Your task to perform on an android device: Go to Google maps Image 0: 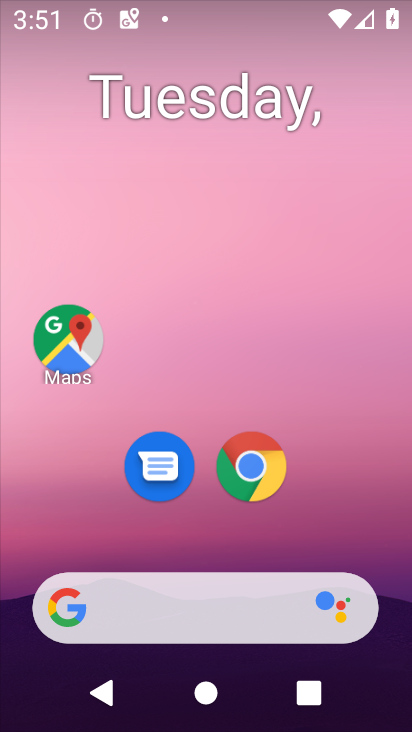
Step 0: drag from (342, 491) to (335, 111)
Your task to perform on an android device: Go to Google maps Image 1: 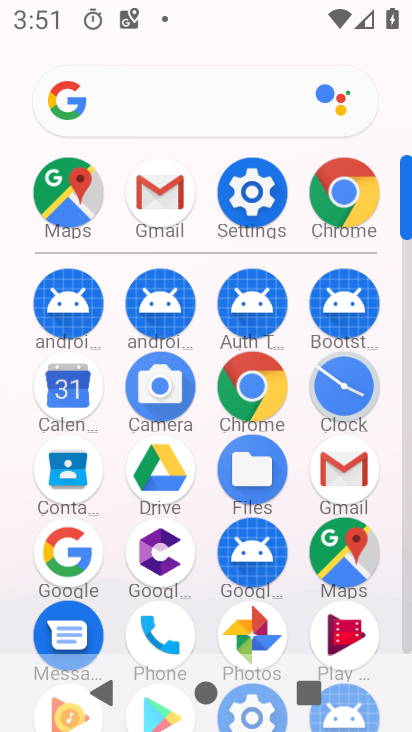
Step 1: click (334, 547)
Your task to perform on an android device: Go to Google maps Image 2: 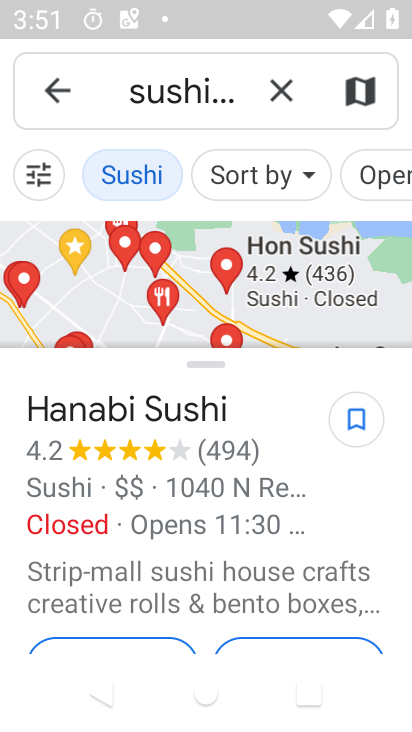
Step 2: task complete